Your task to perform on an android device: open device folders in google photos Image 0: 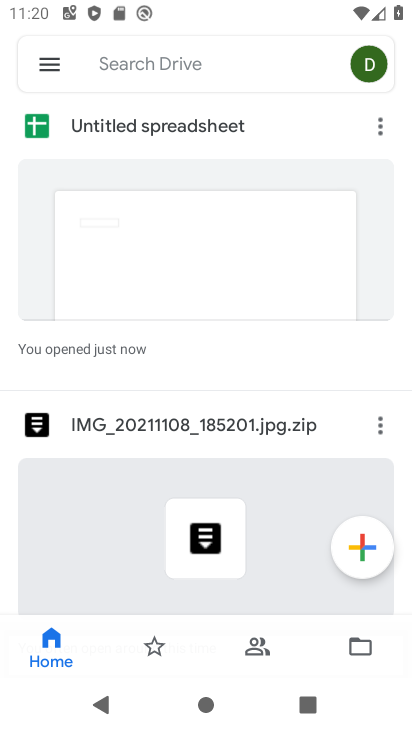
Step 0: press home button
Your task to perform on an android device: open device folders in google photos Image 1: 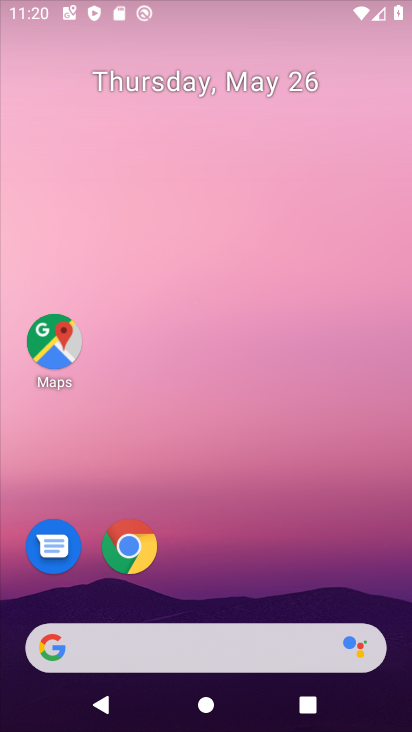
Step 1: drag from (229, 580) to (237, 96)
Your task to perform on an android device: open device folders in google photos Image 2: 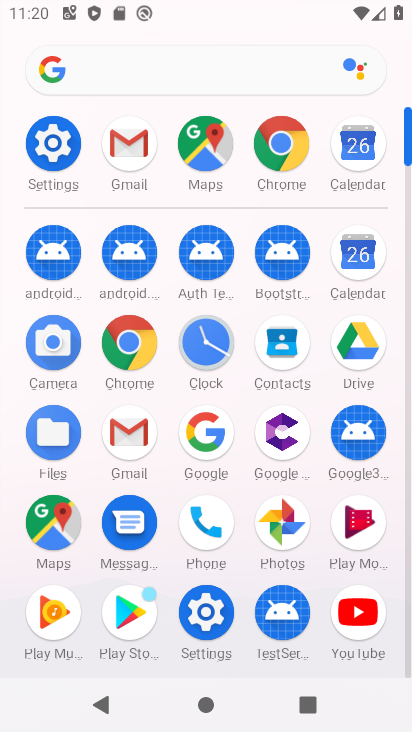
Step 2: click (294, 520)
Your task to perform on an android device: open device folders in google photos Image 3: 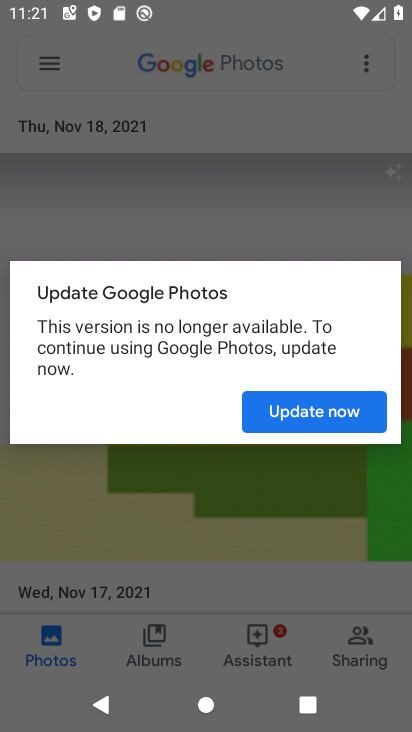
Step 3: click (295, 415)
Your task to perform on an android device: open device folders in google photos Image 4: 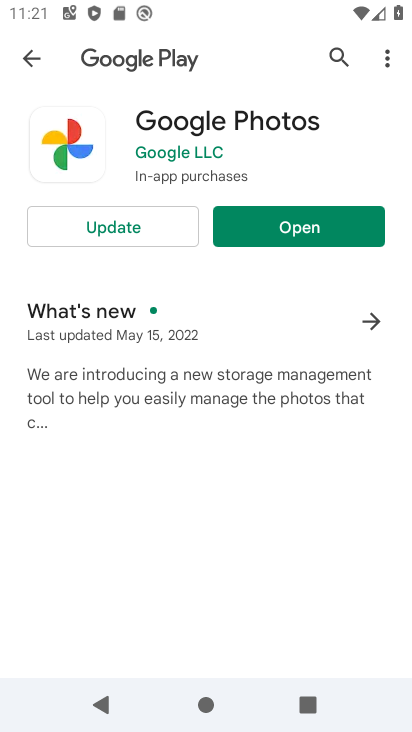
Step 4: click (137, 232)
Your task to perform on an android device: open device folders in google photos Image 5: 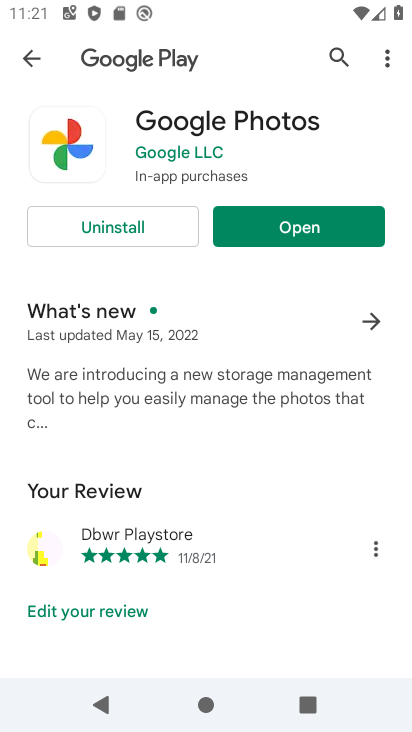
Step 5: click (306, 220)
Your task to perform on an android device: open device folders in google photos Image 6: 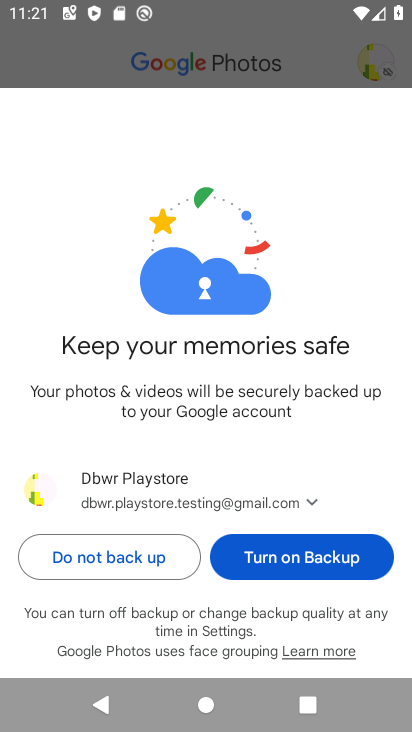
Step 6: click (284, 561)
Your task to perform on an android device: open device folders in google photos Image 7: 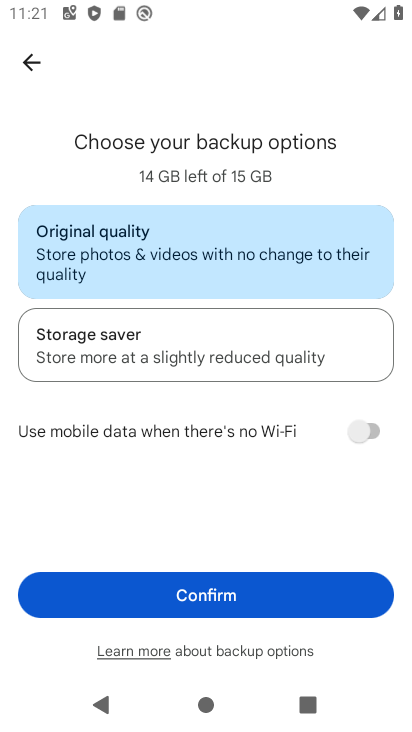
Step 7: task complete